Your task to perform on an android device: Open Yahoo.com Image 0: 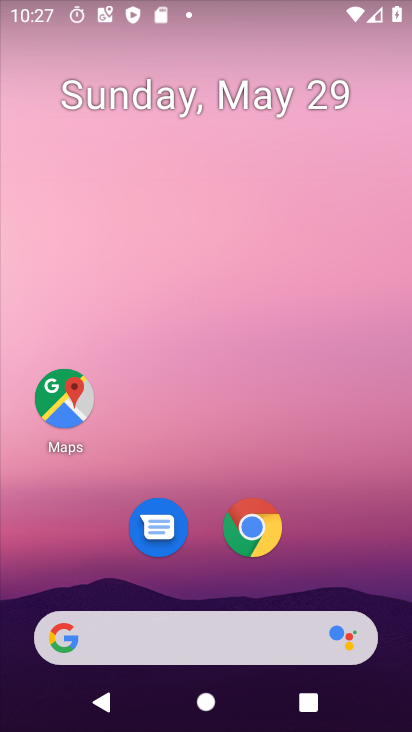
Step 0: click (260, 516)
Your task to perform on an android device: Open Yahoo.com Image 1: 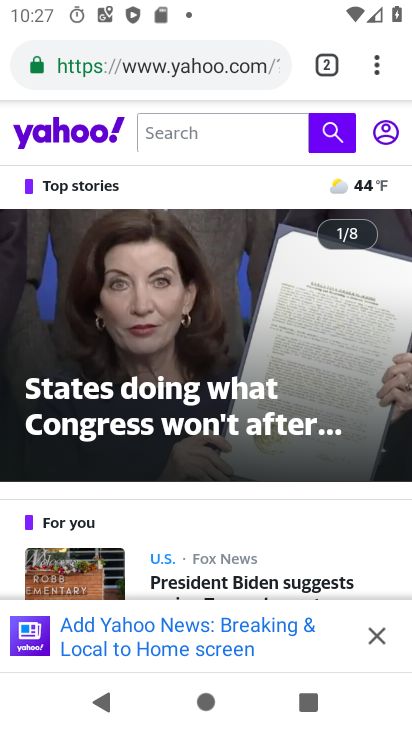
Step 1: task complete